Your task to perform on an android device: turn pop-ups on in chrome Image 0: 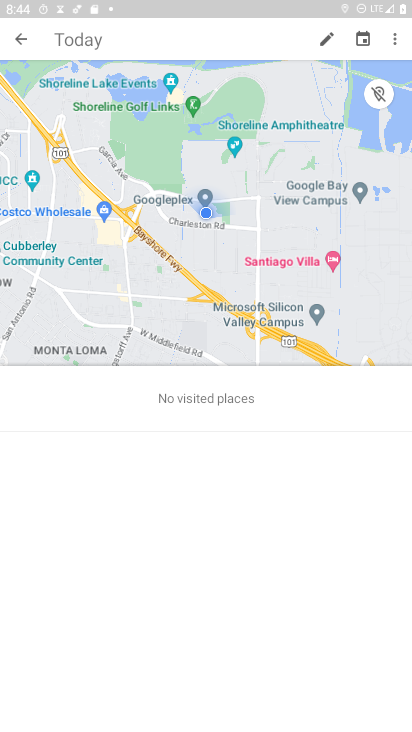
Step 0: press home button
Your task to perform on an android device: turn pop-ups on in chrome Image 1: 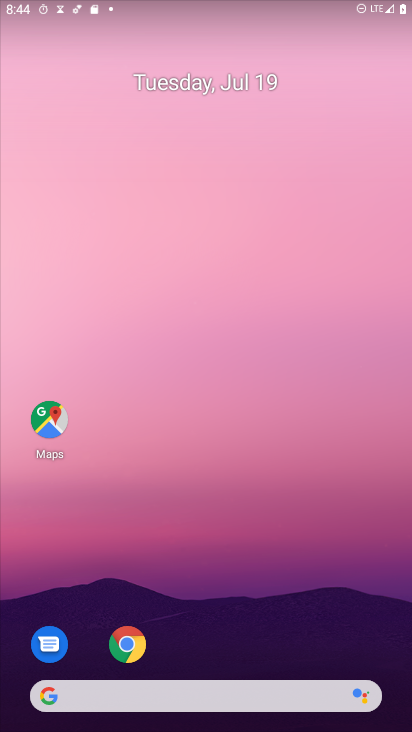
Step 1: click (135, 647)
Your task to perform on an android device: turn pop-ups on in chrome Image 2: 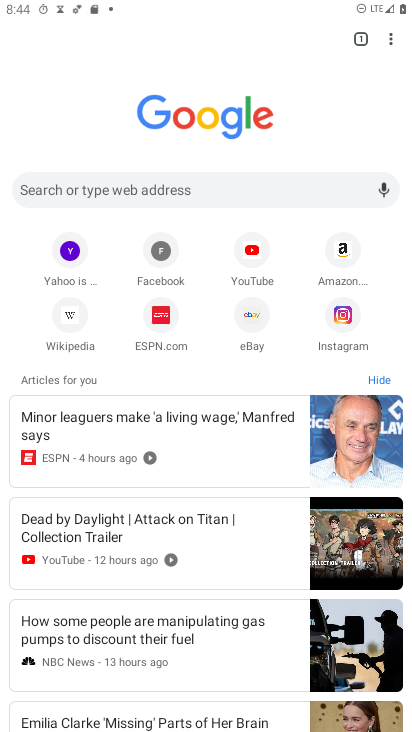
Step 2: click (388, 32)
Your task to perform on an android device: turn pop-ups on in chrome Image 3: 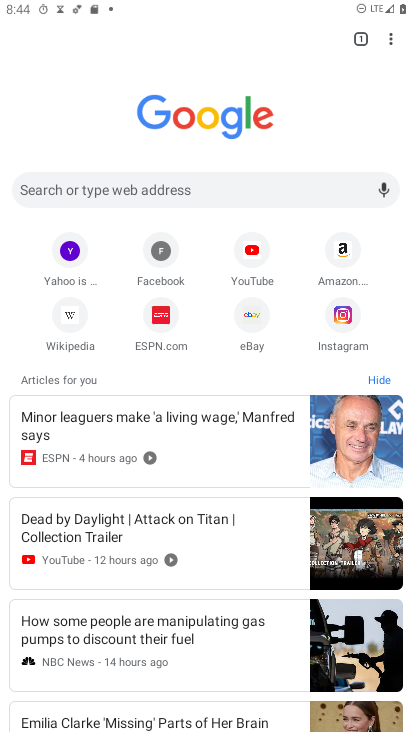
Step 3: click (387, 35)
Your task to perform on an android device: turn pop-ups on in chrome Image 4: 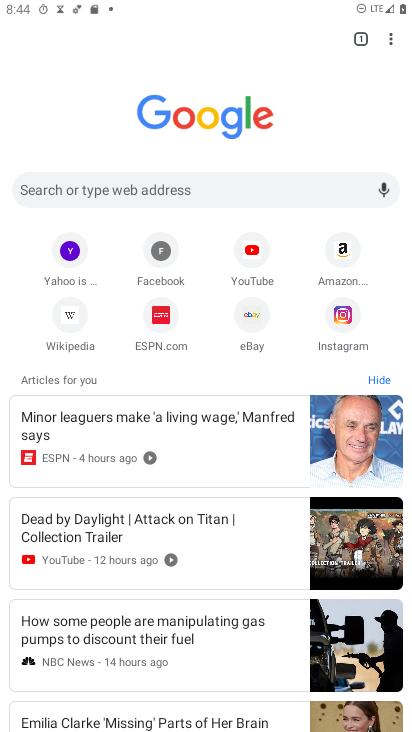
Step 4: click (393, 37)
Your task to perform on an android device: turn pop-ups on in chrome Image 5: 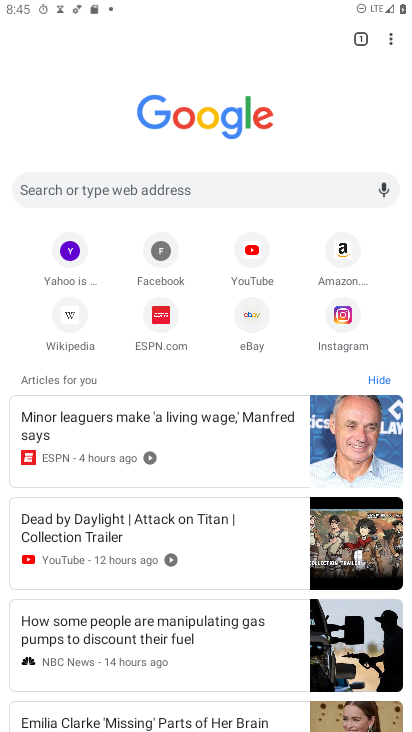
Step 5: click (394, 38)
Your task to perform on an android device: turn pop-ups on in chrome Image 6: 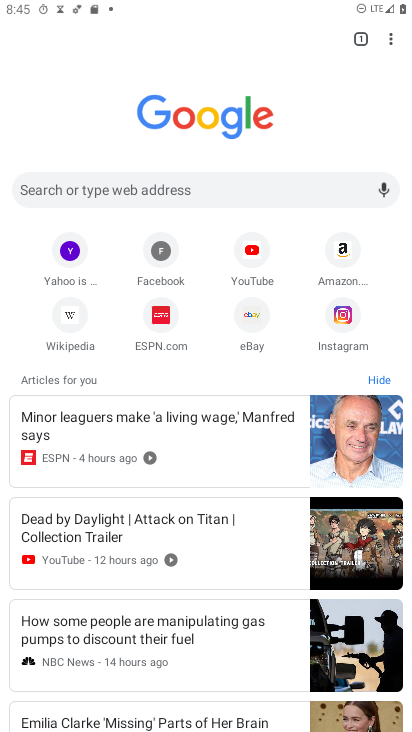
Step 6: task complete